Your task to perform on an android device: change your default location settings in chrome Image 0: 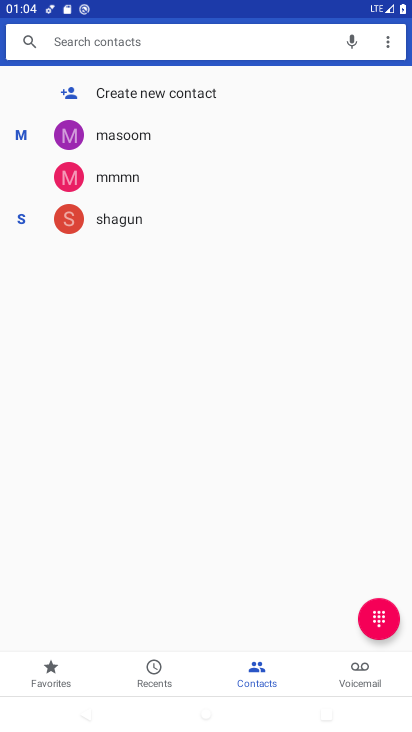
Step 0: press home button
Your task to perform on an android device: change your default location settings in chrome Image 1: 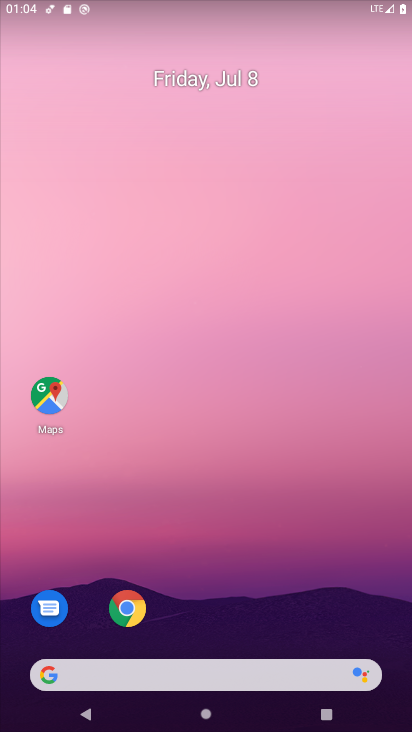
Step 1: drag from (217, 640) to (236, 245)
Your task to perform on an android device: change your default location settings in chrome Image 2: 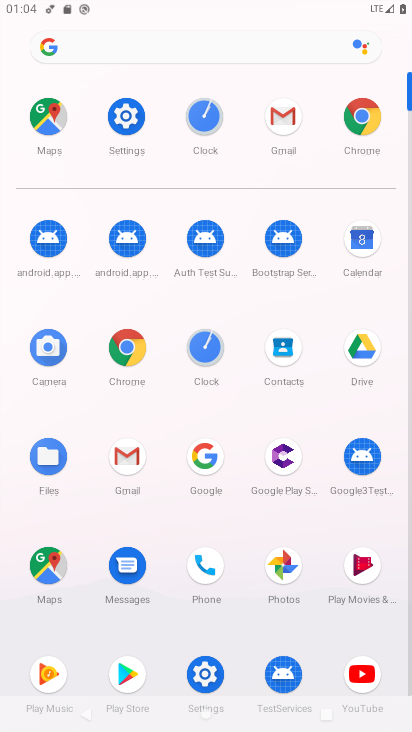
Step 2: click (366, 111)
Your task to perform on an android device: change your default location settings in chrome Image 3: 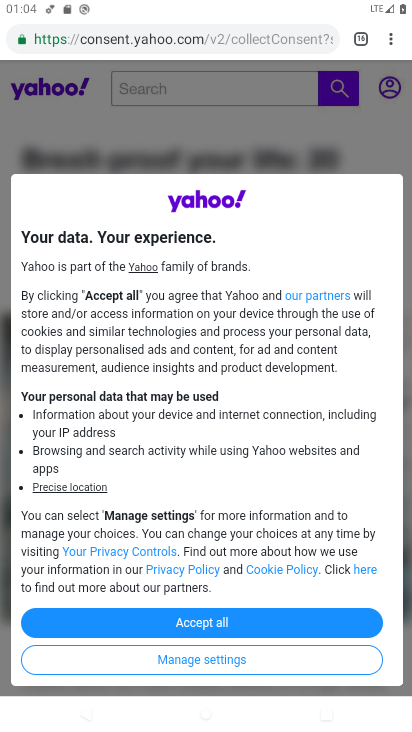
Step 3: click (390, 45)
Your task to perform on an android device: change your default location settings in chrome Image 4: 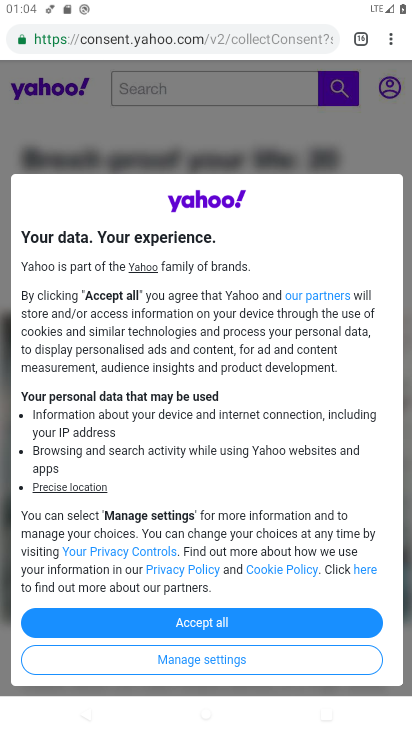
Step 4: click (389, 34)
Your task to perform on an android device: change your default location settings in chrome Image 5: 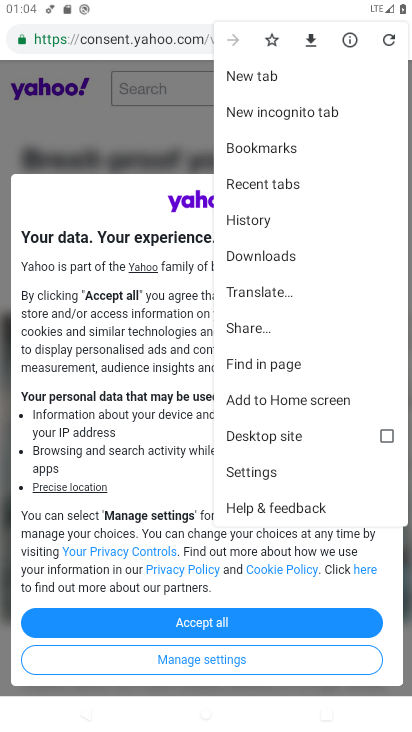
Step 5: click (264, 465)
Your task to perform on an android device: change your default location settings in chrome Image 6: 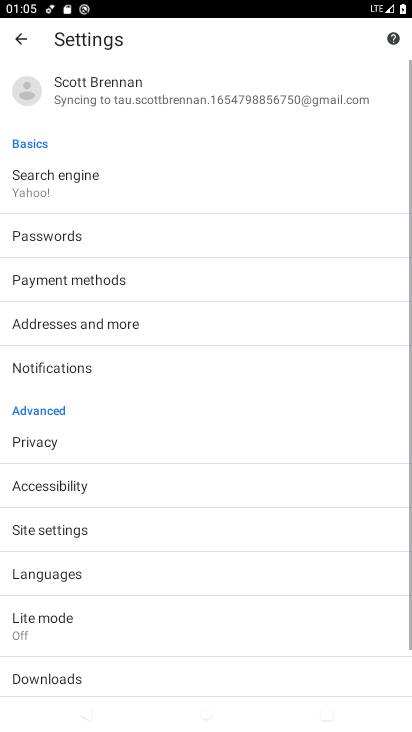
Step 6: click (115, 170)
Your task to perform on an android device: change your default location settings in chrome Image 7: 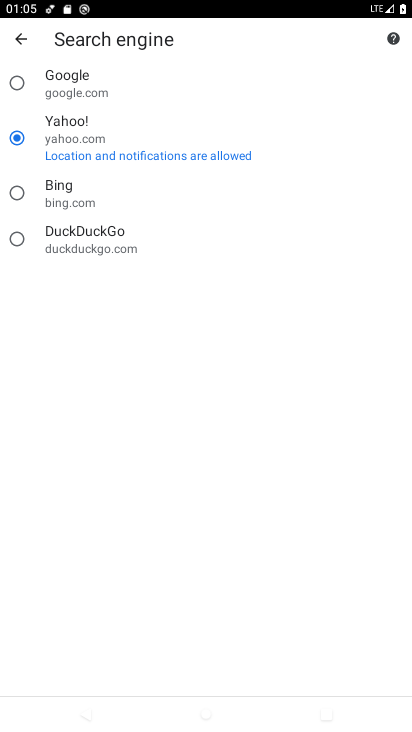
Step 7: click (77, 185)
Your task to perform on an android device: change your default location settings in chrome Image 8: 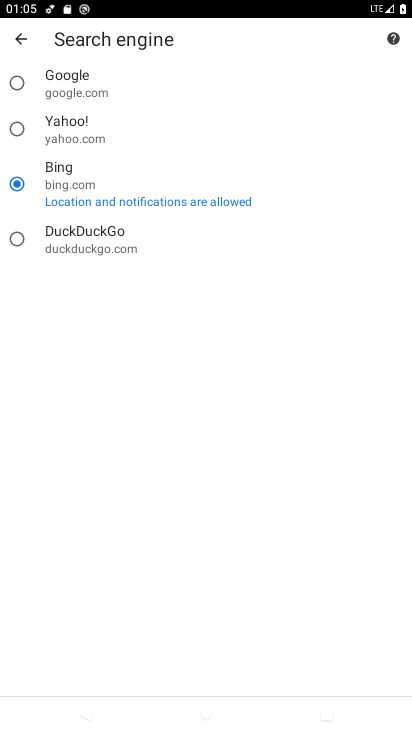
Step 8: task complete